Your task to perform on an android device: Search for seafood restaurants on Google Maps Image 0: 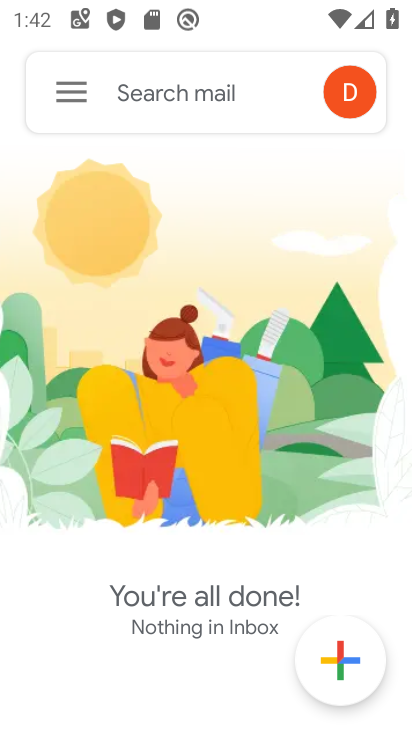
Step 0: press home button
Your task to perform on an android device: Search for seafood restaurants on Google Maps Image 1: 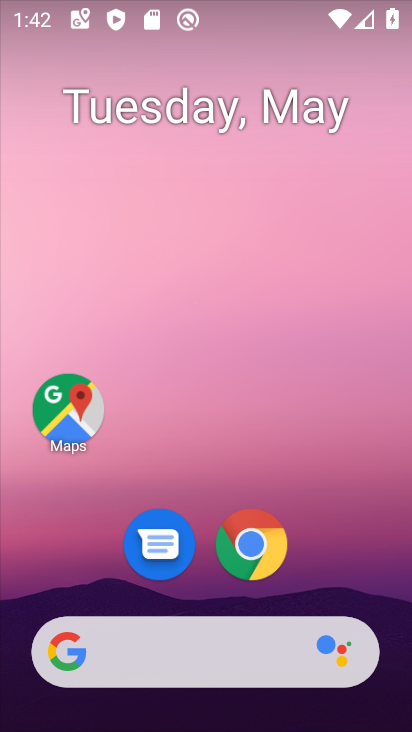
Step 1: click (75, 401)
Your task to perform on an android device: Search for seafood restaurants on Google Maps Image 2: 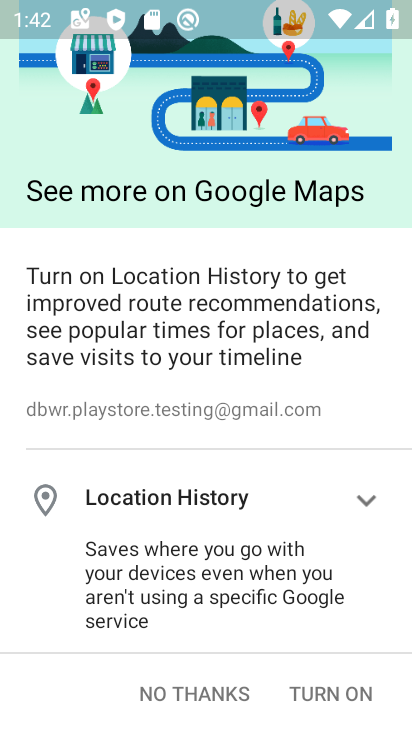
Step 2: click (368, 682)
Your task to perform on an android device: Search for seafood restaurants on Google Maps Image 3: 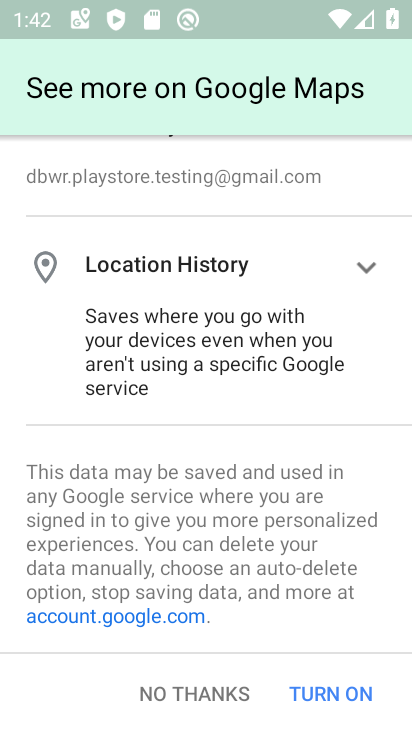
Step 3: click (367, 695)
Your task to perform on an android device: Search for seafood restaurants on Google Maps Image 4: 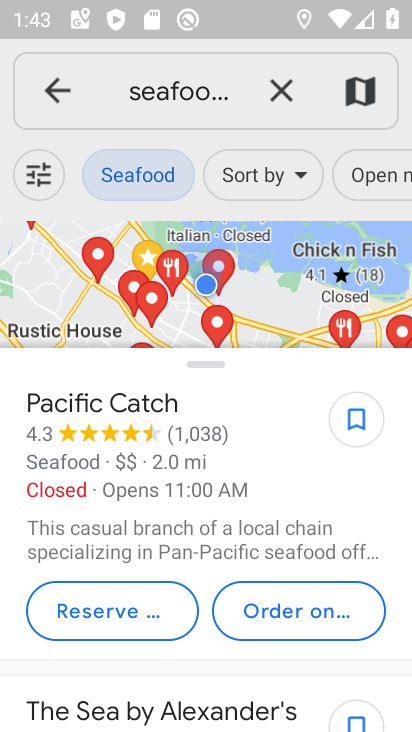
Step 4: task complete